Your task to perform on an android device: Go to eBay Image 0: 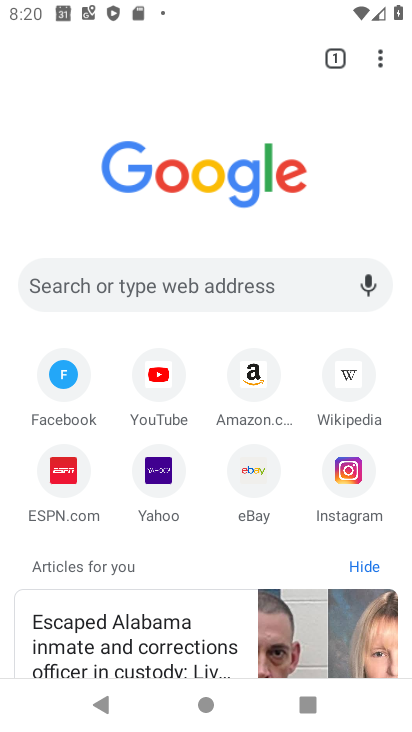
Step 0: click (256, 483)
Your task to perform on an android device: Go to eBay Image 1: 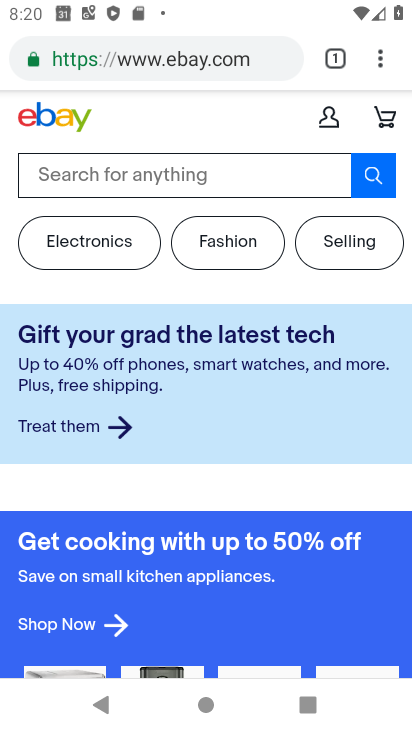
Step 1: task complete